Your task to perform on an android device: change your default location settings in chrome Image 0: 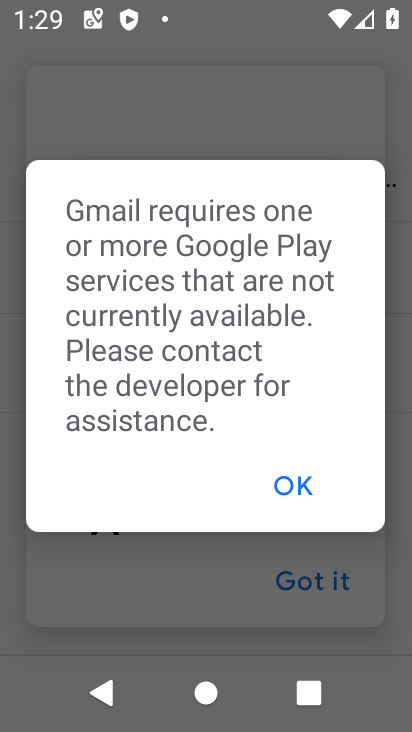
Step 0: press home button
Your task to perform on an android device: change your default location settings in chrome Image 1: 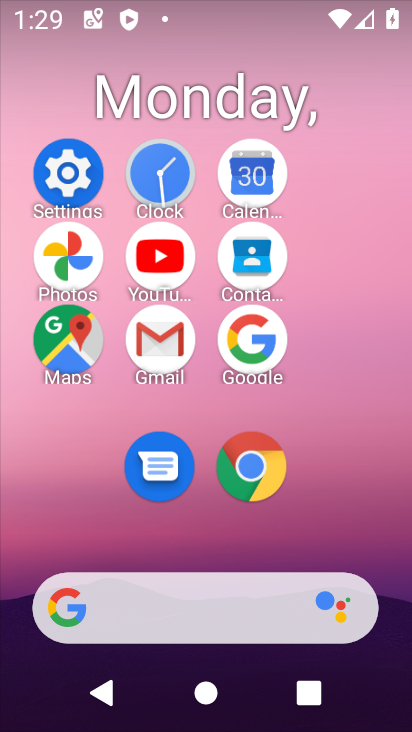
Step 1: click (259, 483)
Your task to perform on an android device: change your default location settings in chrome Image 2: 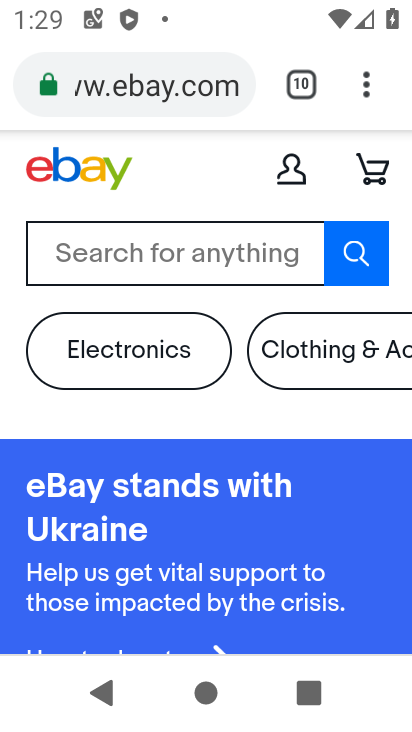
Step 2: click (365, 92)
Your task to perform on an android device: change your default location settings in chrome Image 3: 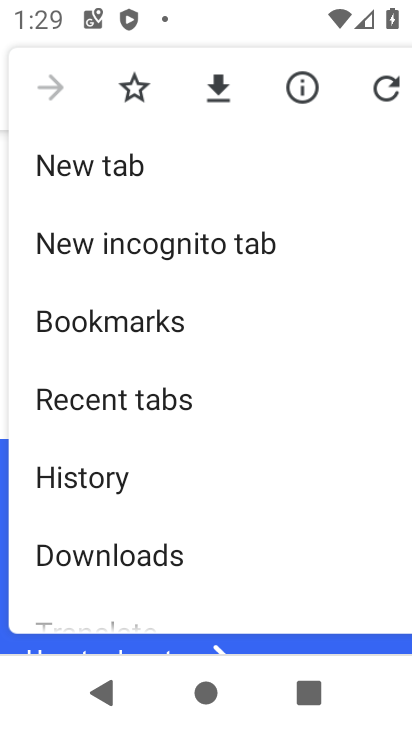
Step 3: drag from (243, 492) to (282, 110)
Your task to perform on an android device: change your default location settings in chrome Image 4: 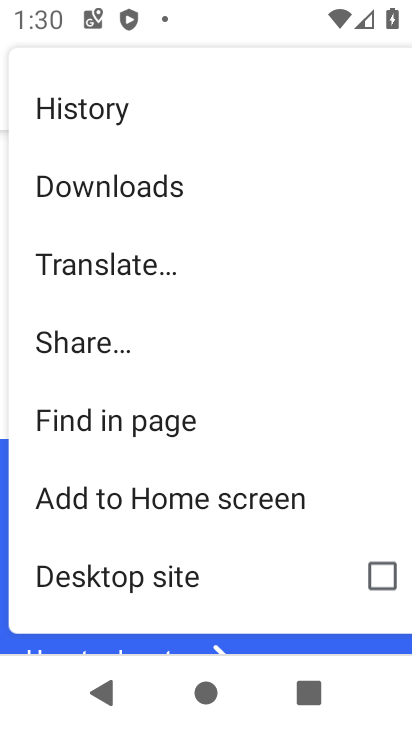
Step 4: drag from (187, 524) to (201, 185)
Your task to perform on an android device: change your default location settings in chrome Image 5: 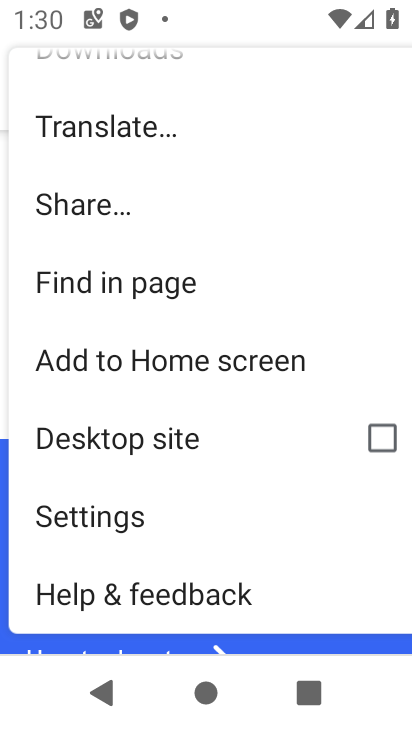
Step 5: click (161, 516)
Your task to perform on an android device: change your default location settings in chrome Image 6: 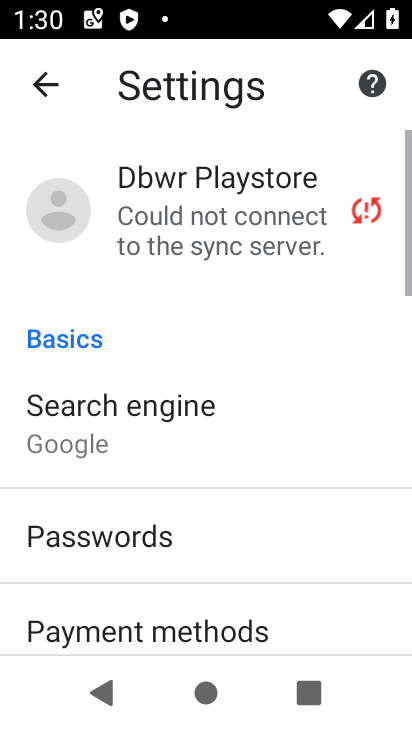
Step 6: drag from (155, 494) to (170, 116)
Your task to perform on an android device: change your default location settings in chrome Image 7: 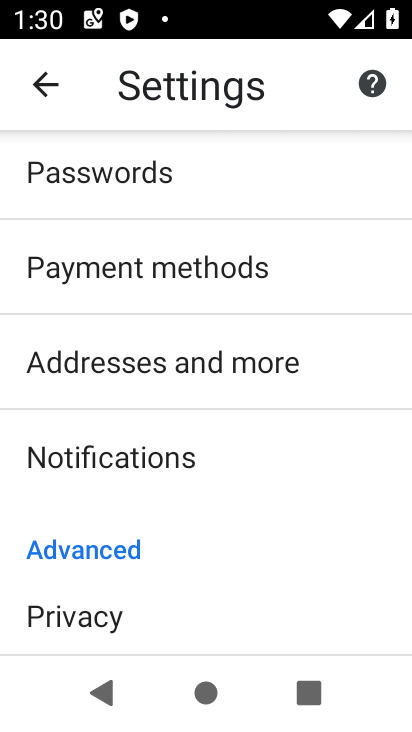
Step 7: drag from (227, 564) to (203, 164)
Your task to perform on an android device: change your default location settings in chrome Image 8: 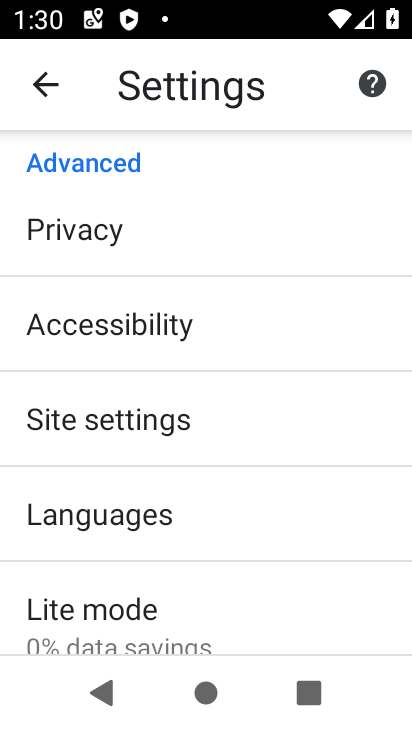
Step 8: drag from (272, 199) to (286, 603)
Your task to perform on an android device: change your default location settings in chrome Image 9: 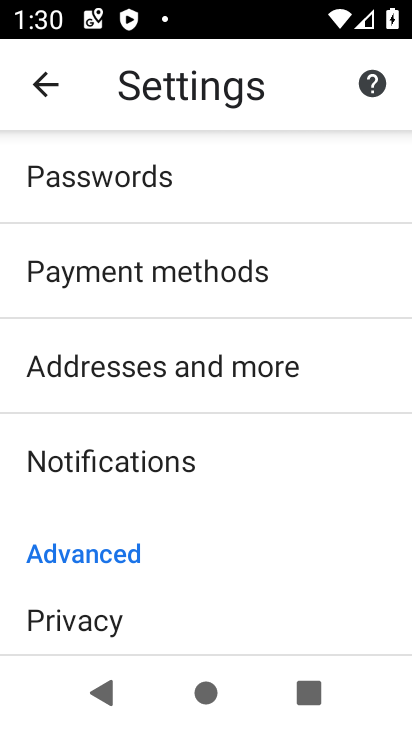
Step 9: drag from (304, 276) to (317, 639)
Your task to perform on an android device: change your default location settings in chrome Image 10: 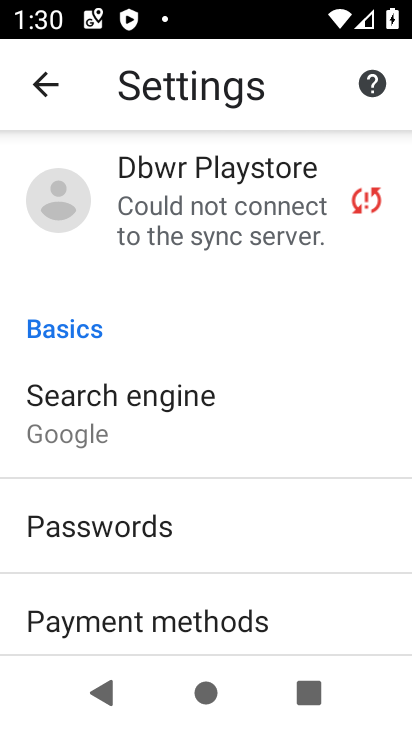
Step 10: drag from (311, 557) to (295, 148)
Your task to perform on an android device: change your default location settings in chrome Image 11: 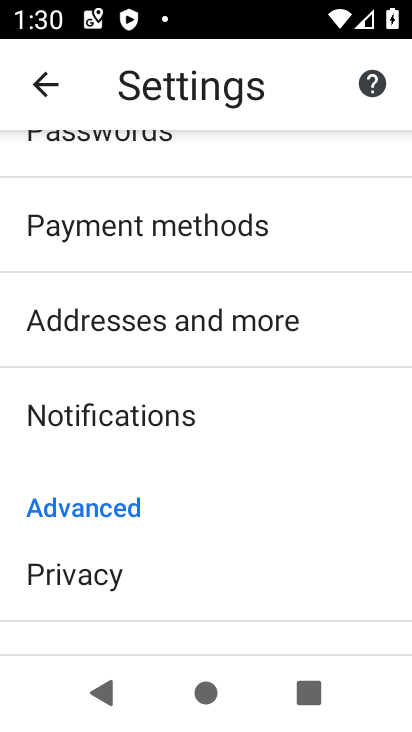
Step 11: drag from (328, 532) to (352, 131)
Your task to perform on an android device: change your default location settings in chrome Image 12: 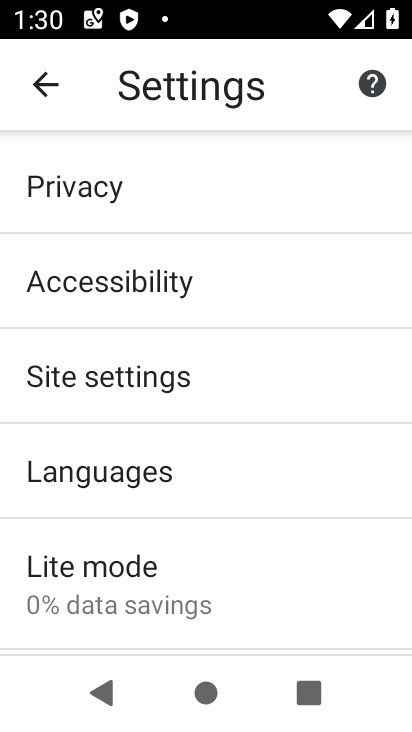
Step 12: drag from (246, 539) to (258, 278)
Your task to perform on an android device: change your default location settings in chrome Image 13: 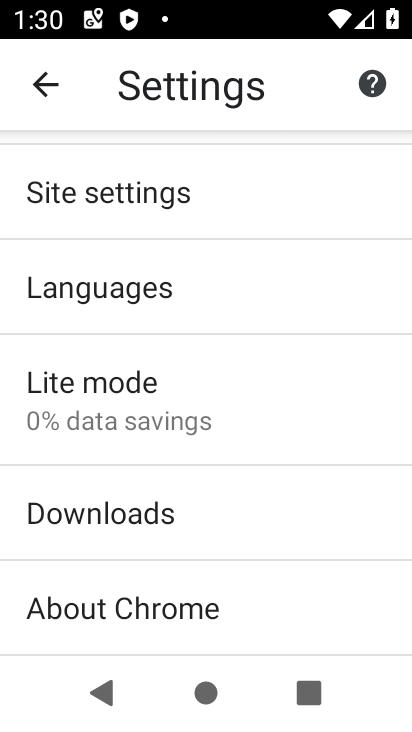
Step 13: click (272, 188)
Your task to perform on an android device: change your default location settings in chrome Image 14: 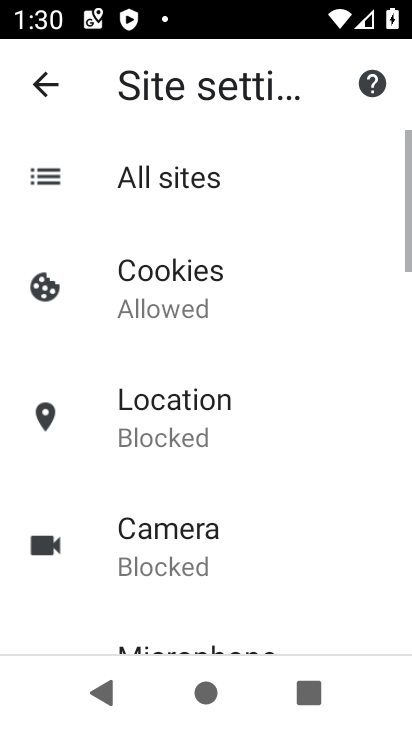
Step 14: click (274, 422)
Your task to perform on an android device: change your default location settings in chrome Image 15: 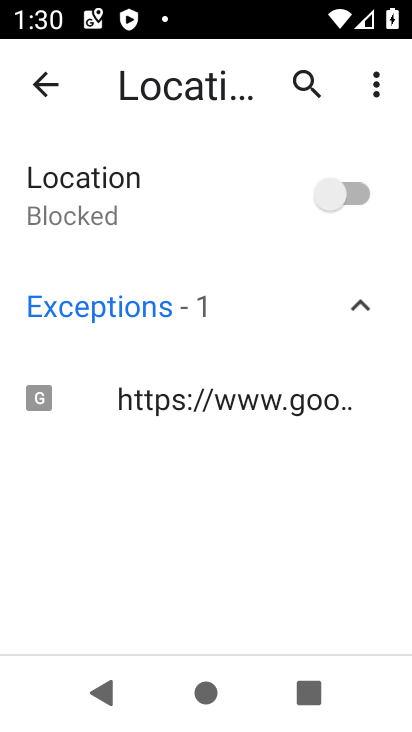
Step 15: click (330, 206)
Your task to perform on an android device: change your default location settings in chrome Image 16: 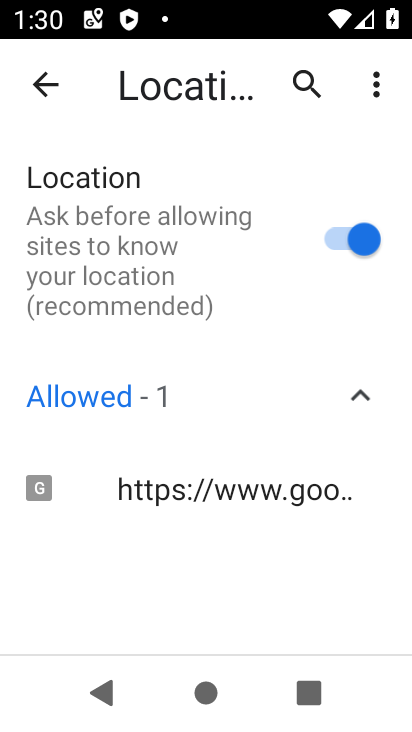
Step 16: task complete